Your task to perform on an android device: Open accessibility settings Image 0: 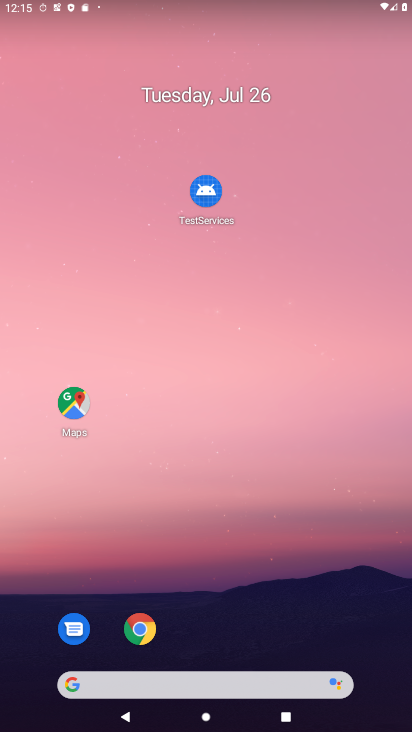
Step 0: click (261, 238)
Your task to perform on an android device: Open accessibility settings Image 1: 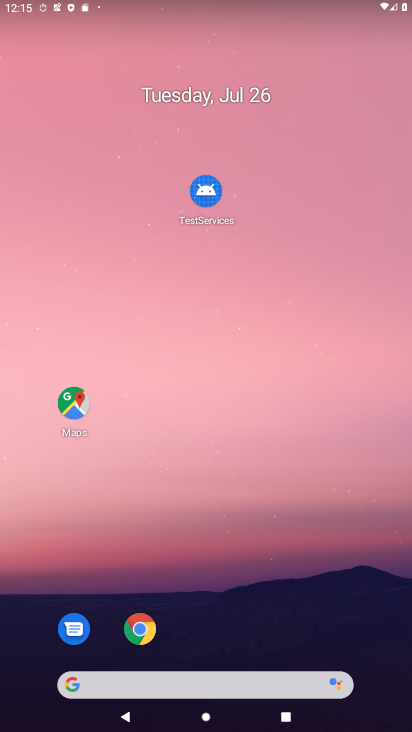
Step 1: drag from (231, 666) to (193, 72)
Your task to perform on an android device: Open accessibility settings Image 2: 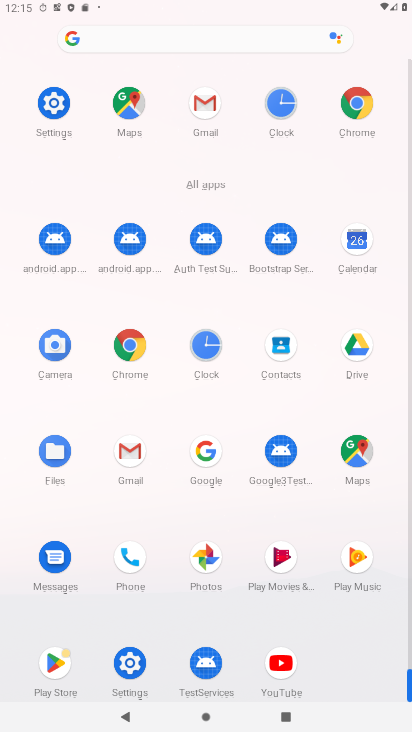
Step 2: drag from (137, 34) to (225, 36)
Your task to perform on an android device: Open accessibility settings Image 3: 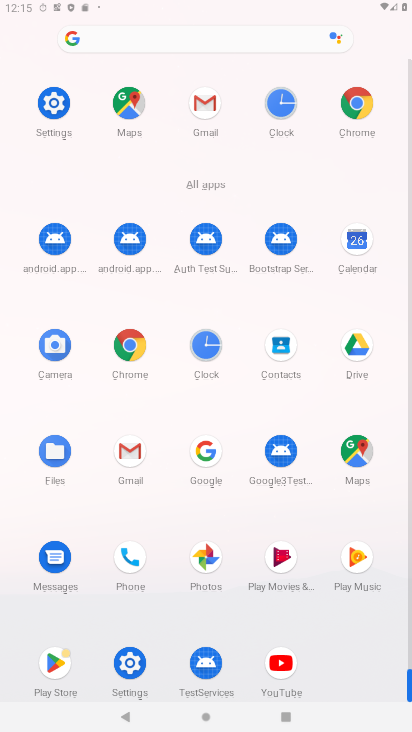
Step 3: click (195, 209)
Your task to perform on an android device: Open accessibility settings Image 4: 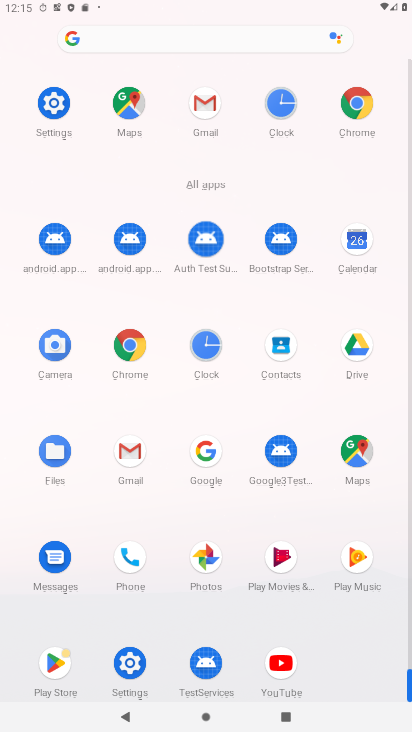
Step 4: click (57, 97)
Your task to perform on an android device: Open accessibility settings Image 5: 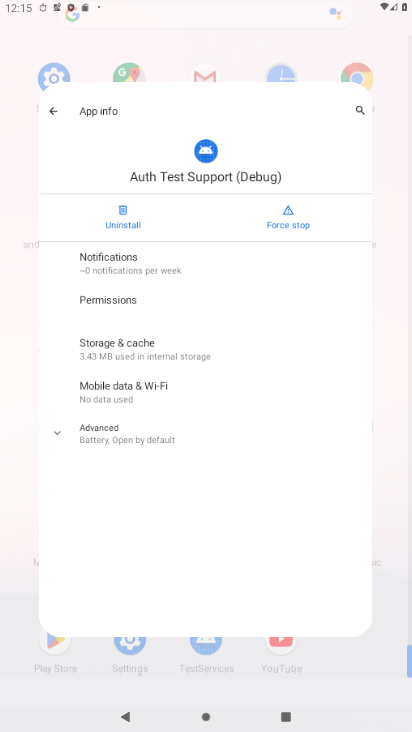
Step 5: click (57, 97)
Your task to perform on an android device: Open accessibility settings Image 6: 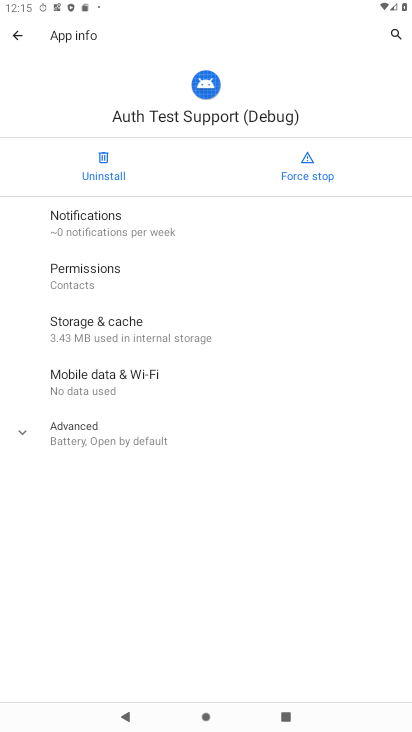
Step 6: click (57, 96)
Your task to perform on an android device: Open accessibility settings Image 7: 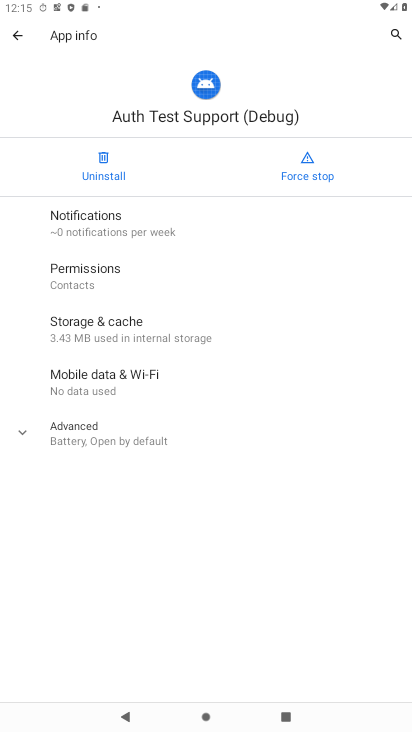
Step 7: click (55, 103)
Your task to perform on an android device: Open accessibility settings Image 8: 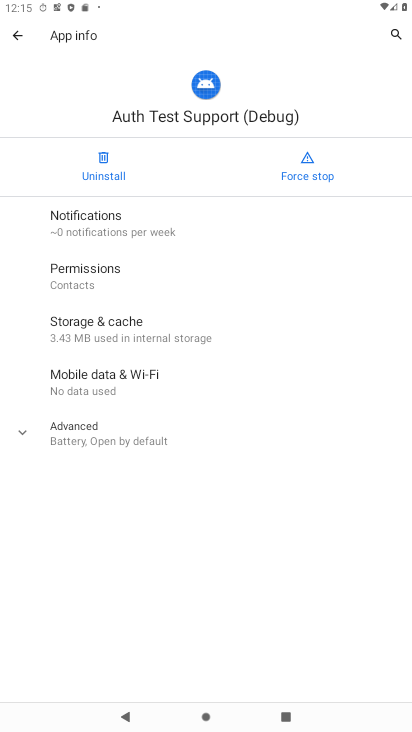
Step 8: click (24, 26)
Your task to perform on an android device: Open accessibility settings Image 9: 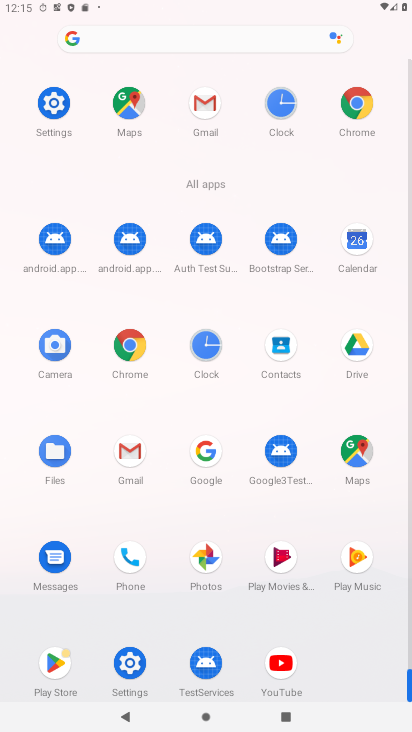
Step 9: click (135, 655)
Your task to perform on an android device: Open accessibility settings Image 10: 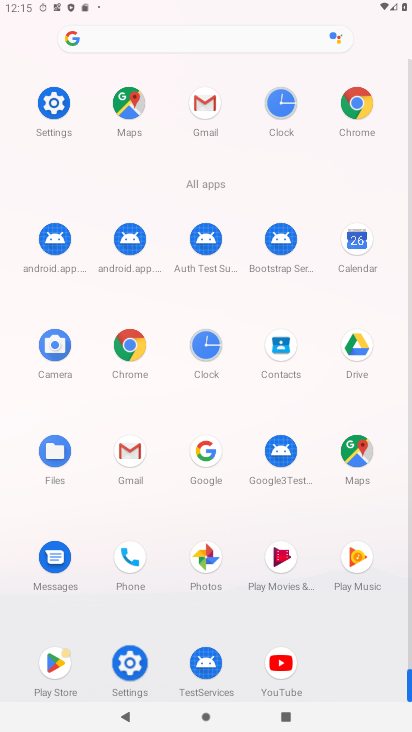
Step 10: click (139, 658)
Your task to perform on an android device: Open accessibility settings Image 11: 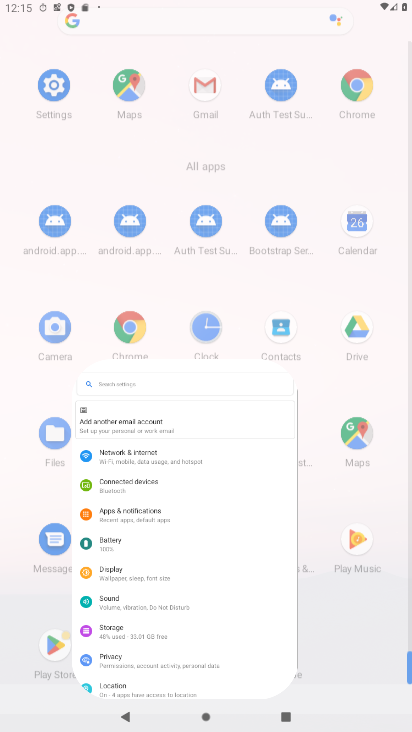
Step 11: click (140, 659)
Your task to perform on an android device: Open accessibility settings Image 12: 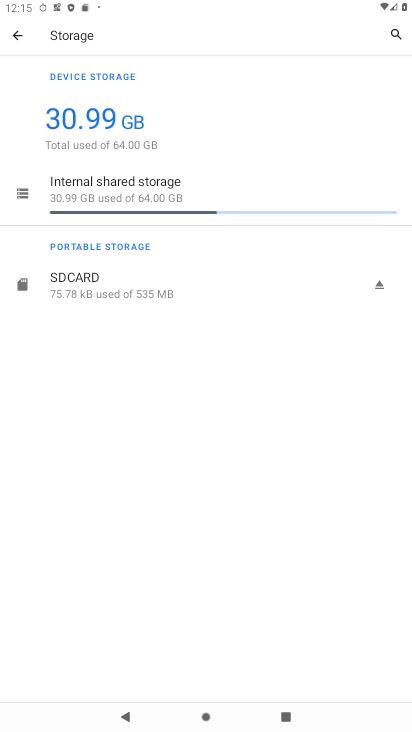
Step 12: click (18, 30)
Your task to perform on an android device: Open accessibility settings Image 13: 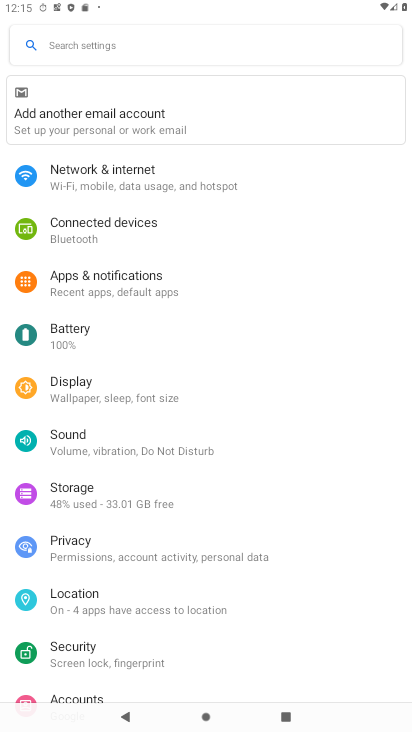
Step 13: drag from (162, 676) to (109, 228)
Your task to perform on an android device: Open accessibility settings Image 14: 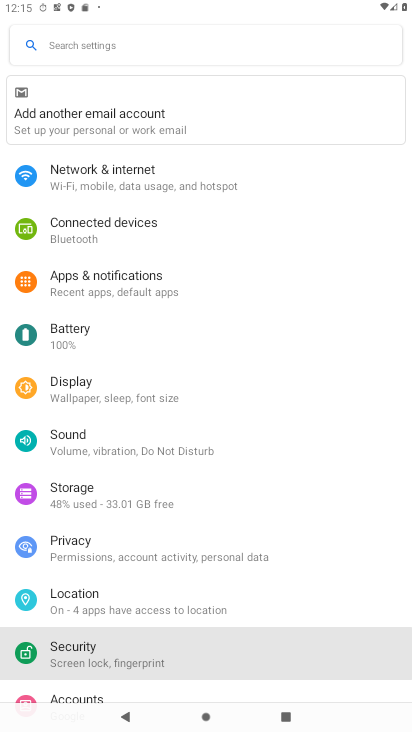
Step 14: click (126, 201)
Your task to perform on an android device: Open accessibility settings Image 15: 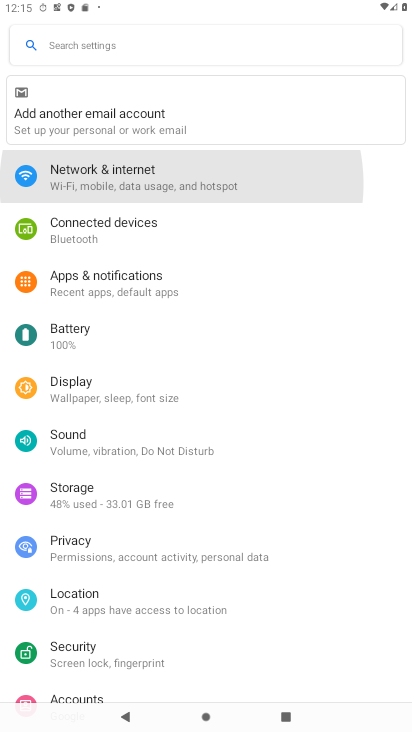
Step 15: click (163, 308)
Your task to perform on an android device: Open accessibility settings Image 16: 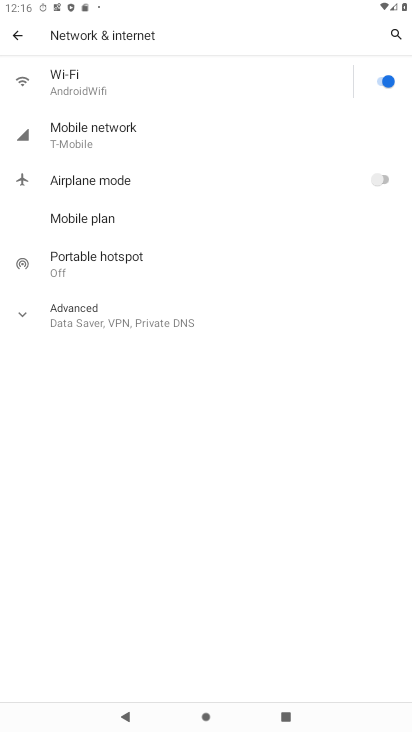
Step 16: click (20, 33)
Your task to perform on an android device: Open accessibility settings Image 17: 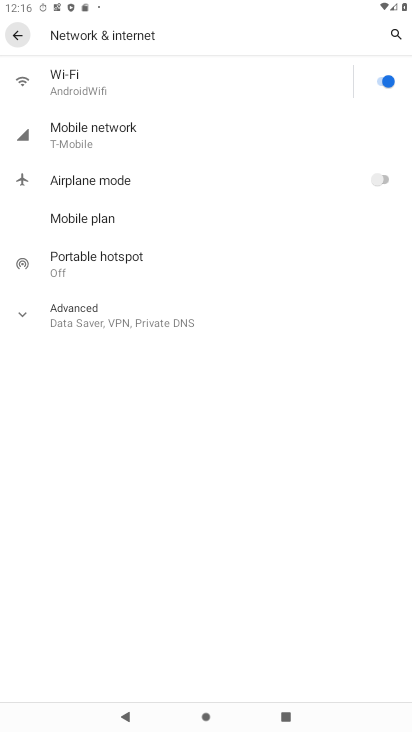
Step 17: click (18, 33)
Your task to perform on an android device: Open accessibility settings Image 18: 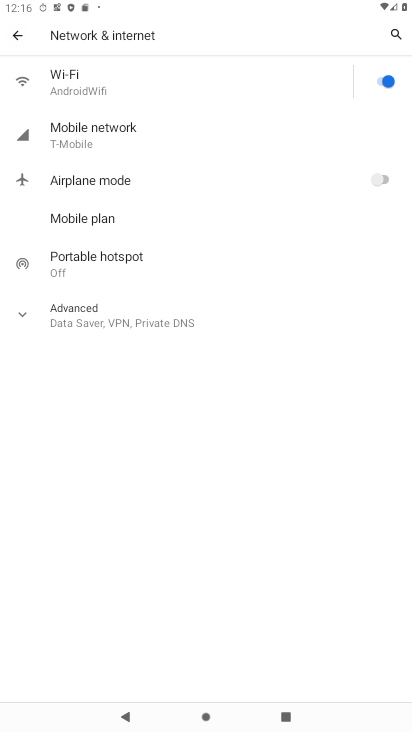
Step 18: click (18, 33)
Your task to perform on an android device: Open accessibility settings Image 19: 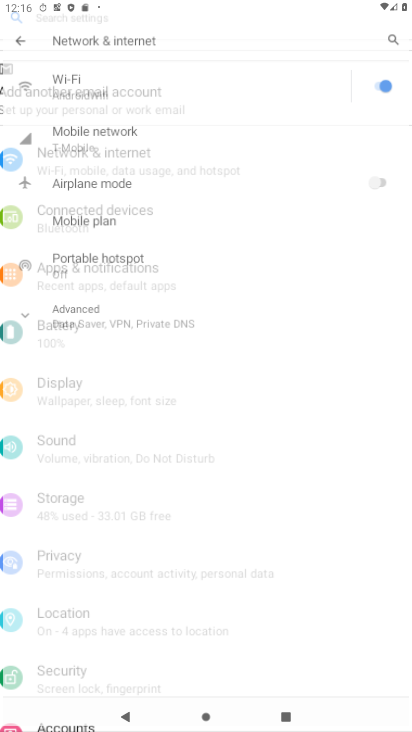
Step 19: click (17, 37)
Your task to perform on an android device: Open accessibility settings Image 20: 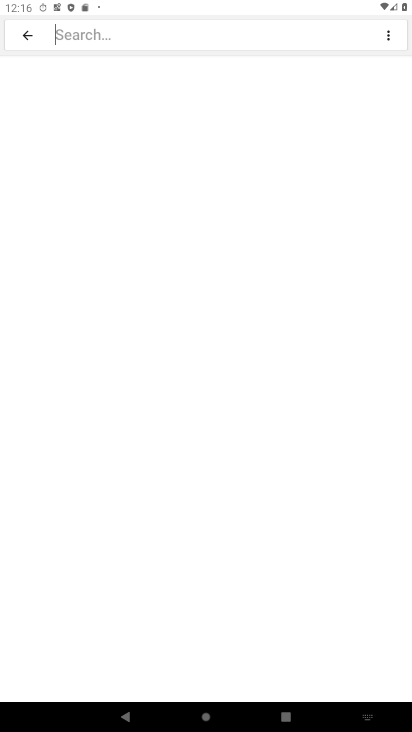
Step 20: click (21, 39)
Your task to perform on an android device: Open accessibility settings Image 21: 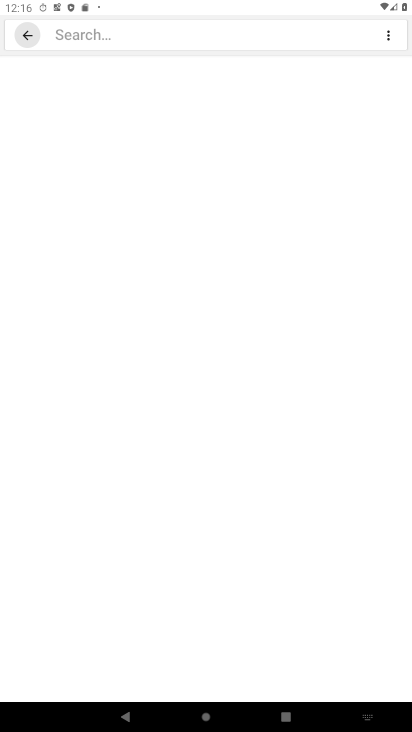
Step 21: click (26, 36)
Your task to perform on an android device: Open accessibility settings Image 22: 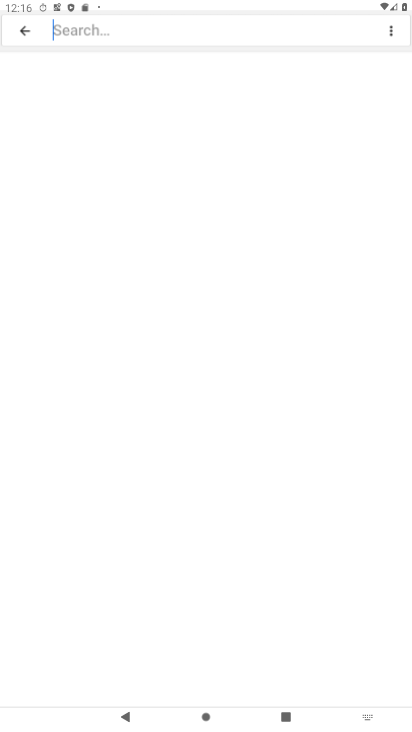
Step 22: click (26, 36)
Your task to perform on an android device: Open accessibility settings Image 23: 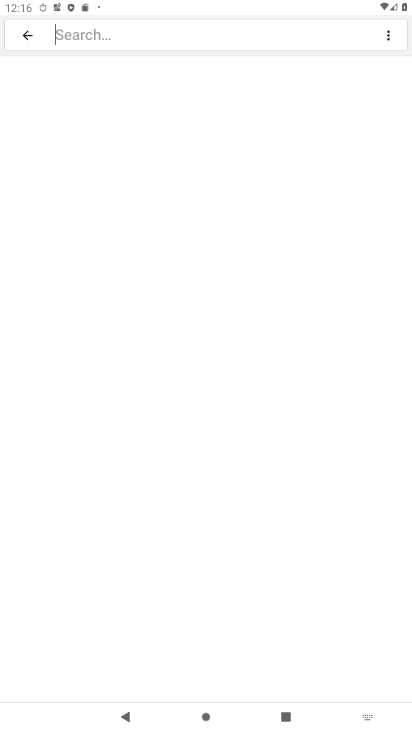
Step 23: click (26, 36)
Your task to perform on an android device: Open accessibility settings Image 24: 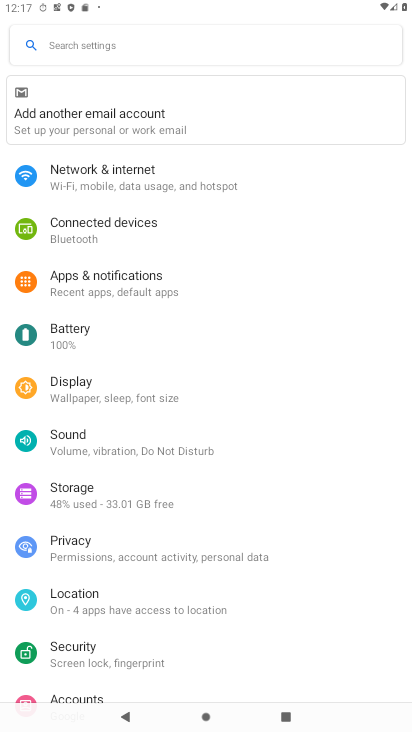
Step 24: drag from (176, 510) to (108, 268)
Your task to perform on an android device: Open accessibility settings Image 25: 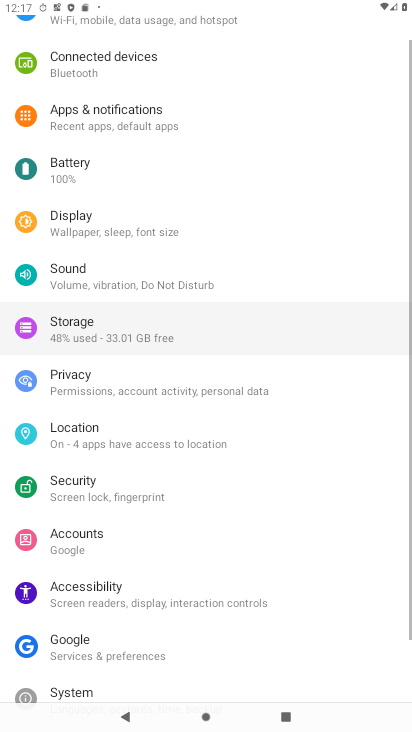
Step 25: drag from (37, 517) to (33, 325)
Your task to perform on an android device: Open accessibility settings Image 26: 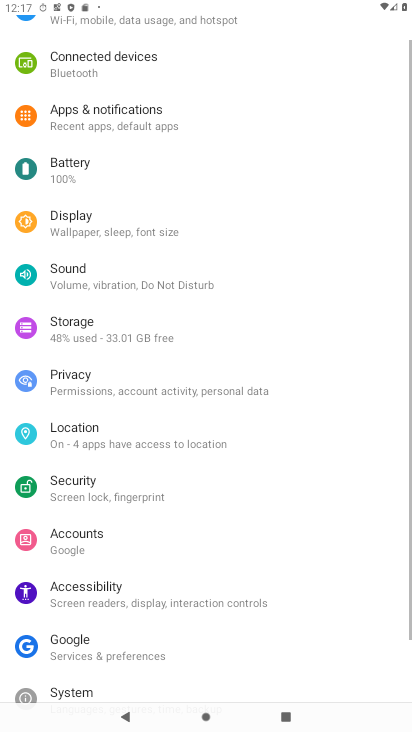
Step 26: drag from (51, 401) to (79, 278)
Your task to perform on an android device: Open accessibility settings Image 27: 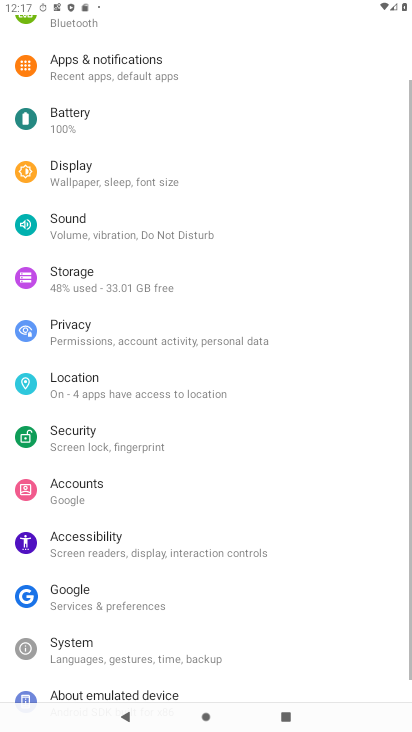
Step 27: click (143, 169)
Your task to perform on an android device: Open accessibility settings Image 28: 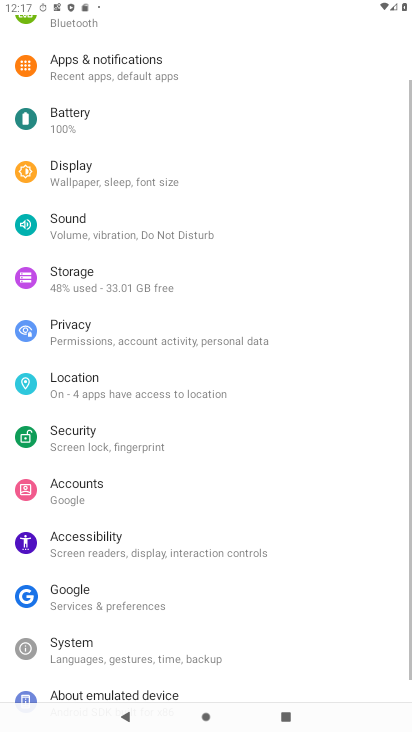
Step 28: drag from (153, 436) to (148, 211)
Your task to perform on an android device: Open accessibility settings Image 29: 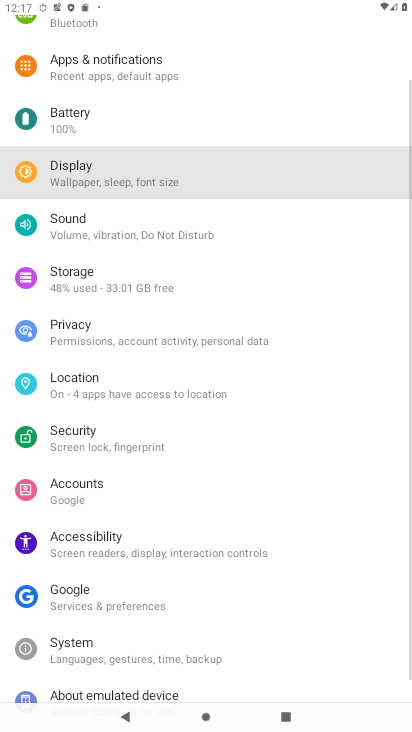
Step 29: drag from (146, 442) to (123, 213)
Your task to perform on an android device: Open accessibility settings Image 30: 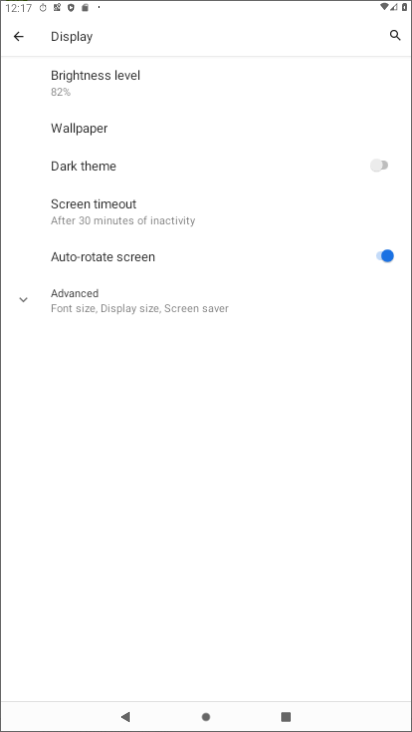
Step 30: drag from (44, 548) to (34, 325)
Your task to perform on an android device: Open accessibility settings Image 31: 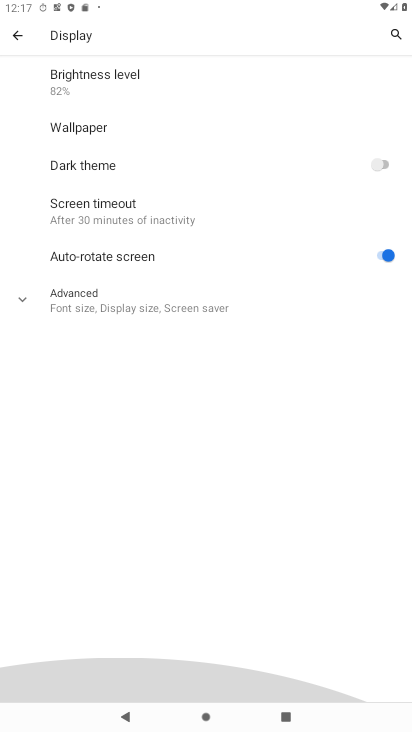
Step 31: drag from (85, 510) to (67, 259)
Your task to perform on an android device: Open accessibility settings Image 32: 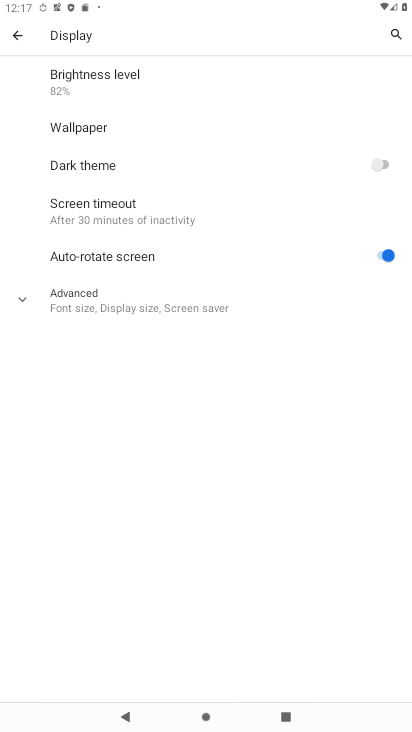
Step 32: click (21, 46)
Your task to perform on an android device: Open accessibility settings Image 33: 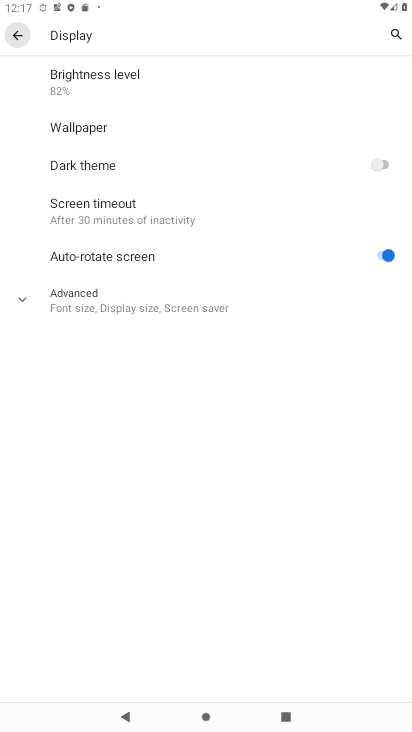
Step 33: click (21, 45)
Your task to perform on an android device: Open accessibility settings Image 34: 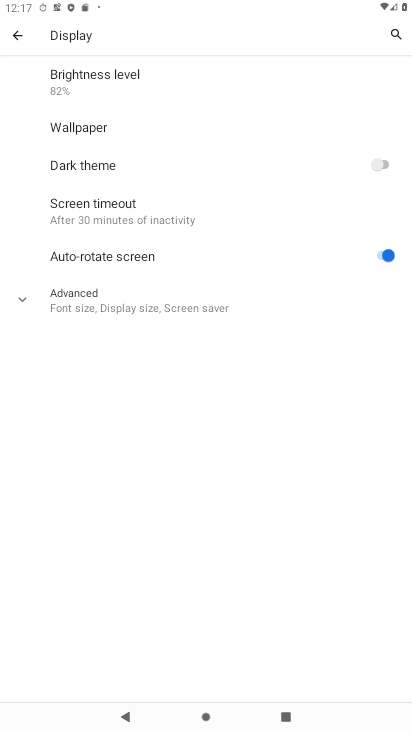
Step 34: click (14, 45)
Your task to perform on an android device: Open accessibility settings Image 35: 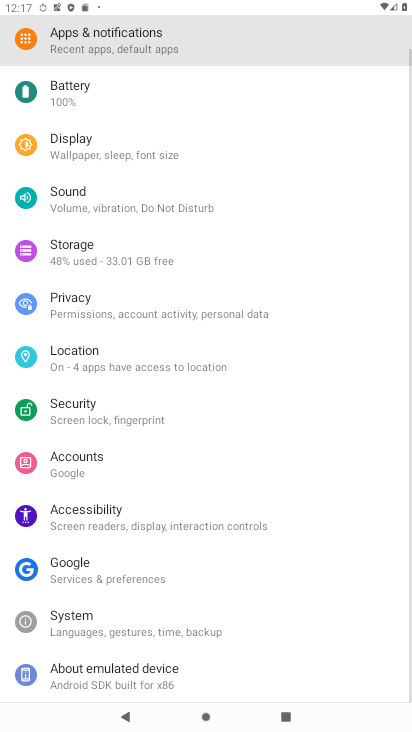
Step 35: drag from (205, 342) to (233, 168)
Your task to perform on an android device: Open accessibility settings Image 36: 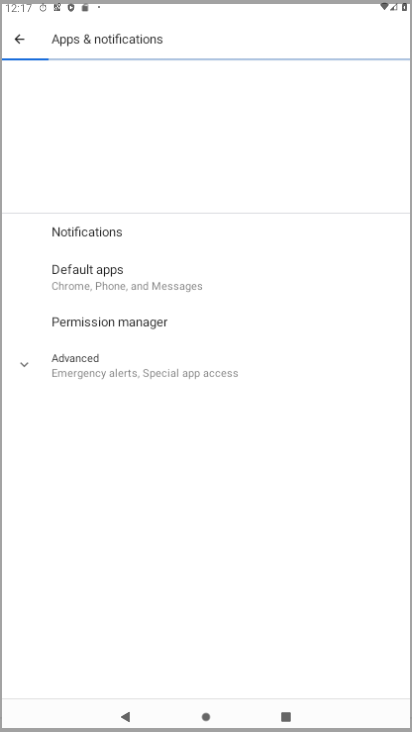
Step 36: drag from (172, 460) to (172, 215)
Your task to perform on an android device: Open accessibility settings Image 37: 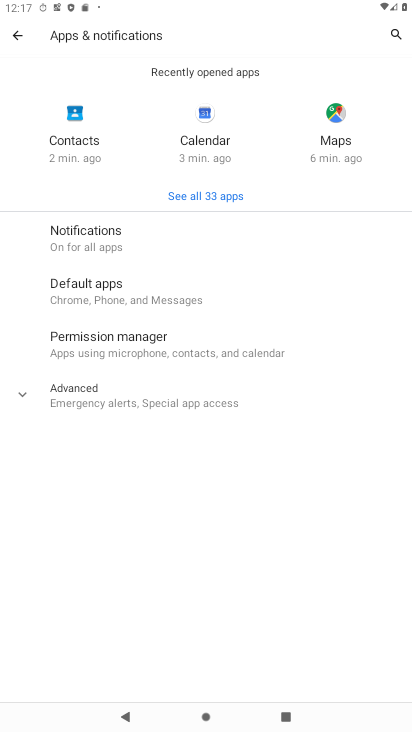
Step 37: click (18, 33)
Your task to perform on an android device: Open accessibility settings Image 38: 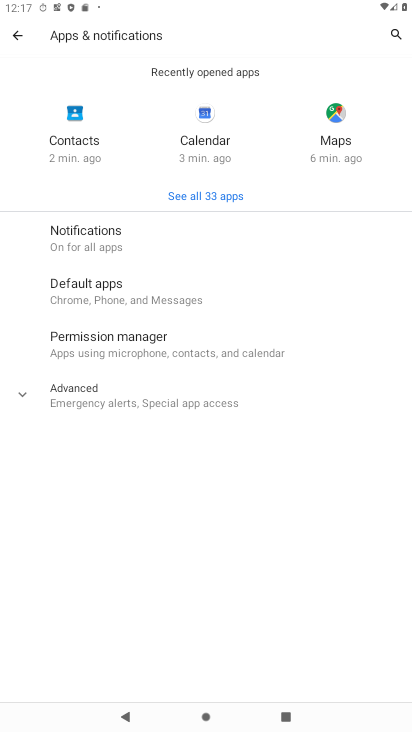
Step 38: click (16, 31)
Your task to perform on an android device: Open accessibility settings Image 39: 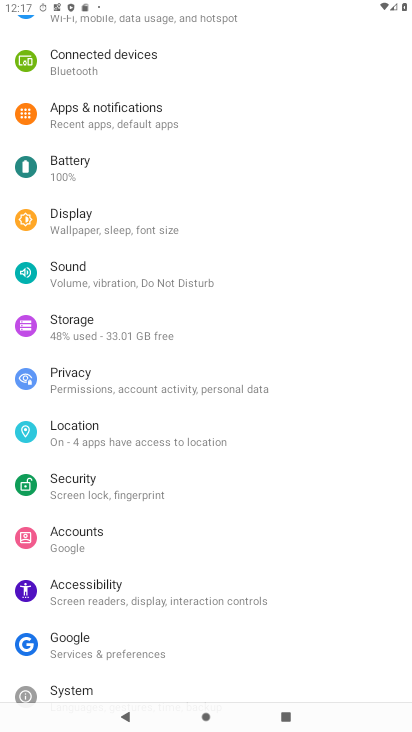
Step 39: drag from (185, 501) to (207, 173)
Your task to perform on an android device: Open accessibility settings Image 40: 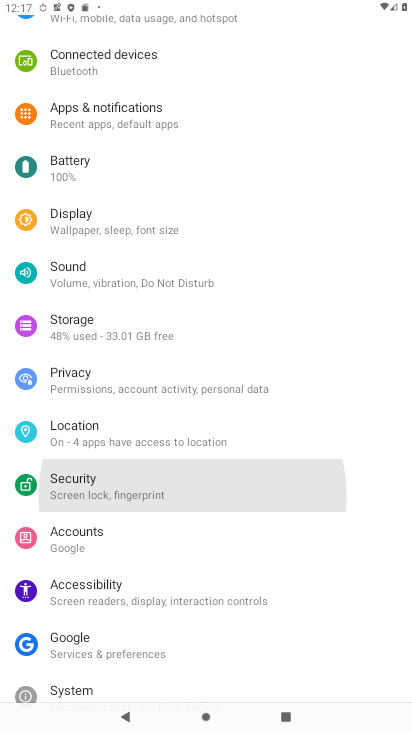
Step 40: drag from (211, 434) to (245, 78)
Your task to perform on an android device: Open accessibility settings Image 41: 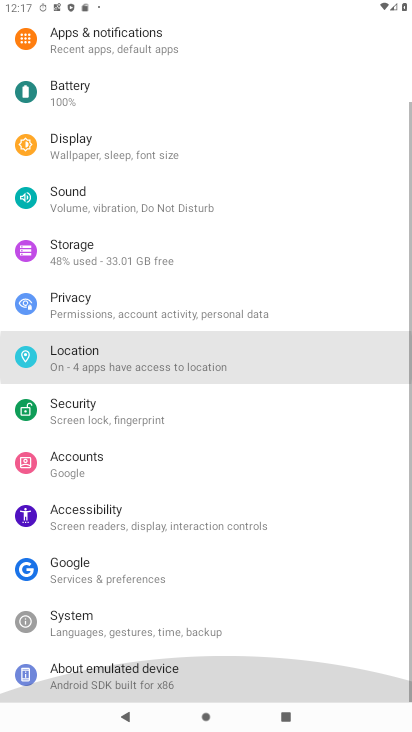
Step 41: drag from (225, 414) to (239, 58)
Your task to perform on an android device: Open accessibility settings Image 42: 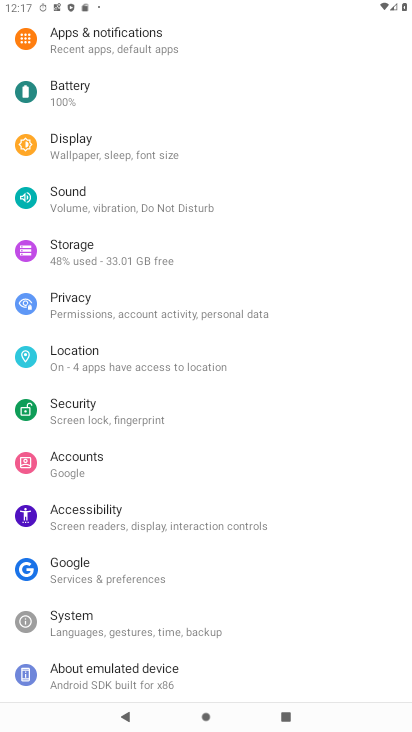
Step 42: click (100, 514)
Your task to perform on an android device: Open accessibility settings Image 43: 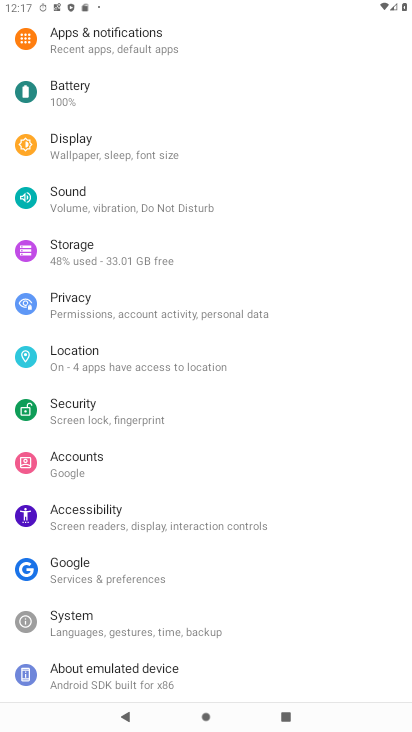
Step 43: click (100, 514)
Your task to perform on an android device: Open accessibility settings Image 44: 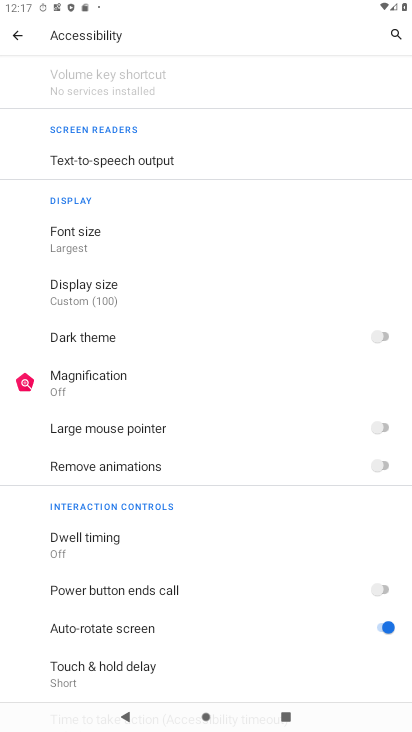
Step 44: task complete